Your task to perform on an android device: check google app version Image 0: 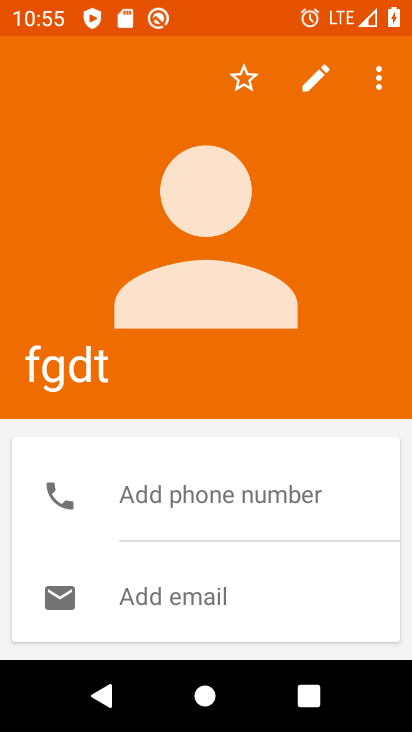
Step 0: press home button
Your task to perform on an android device: check google app version Image 1: 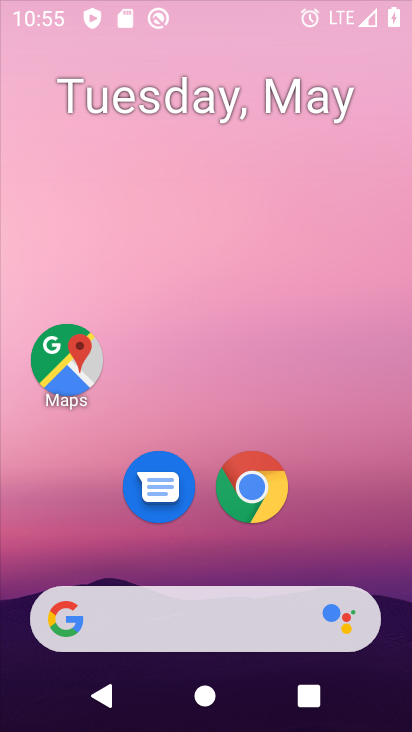
Step 1: drag from (185, 603) to (147, 1)
Your task to perform on an android device: check google app version Image 2: 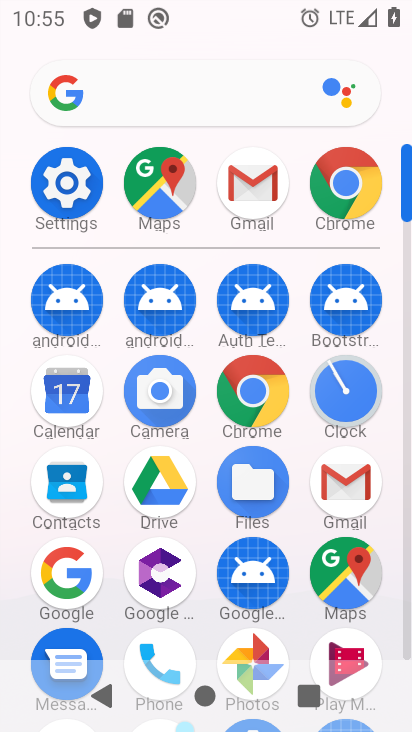
Step 2: click (56, 596)
Your task to perform on an android device: check google app version Image 3: 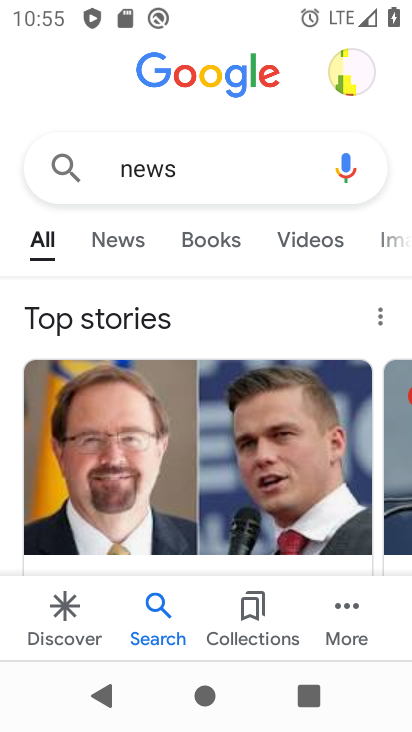
Step 3: click (334, 614)
Your task to perform on an android device: check google app version Image 4: 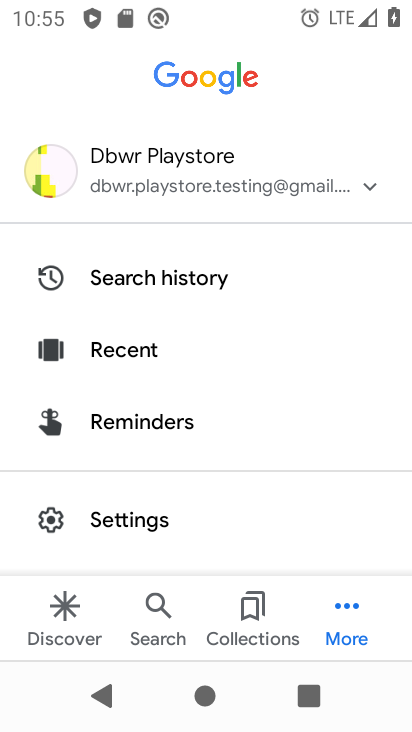
Step 4: drag from (243, 489) to (215, 212)
Your task to perform on an android device: check google app version Image 5: 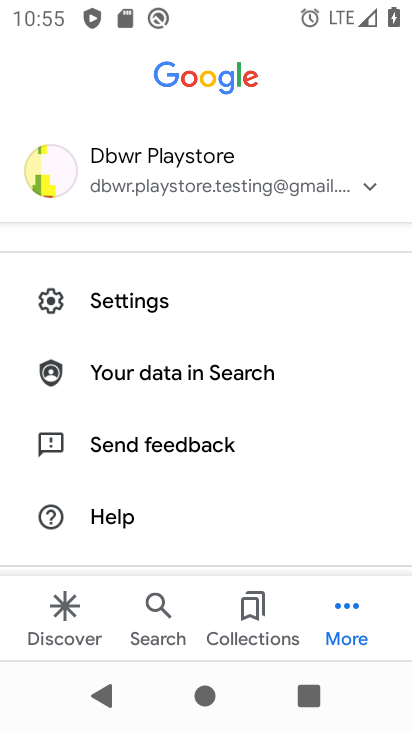
Step 5: click (158, 297)
Your task to perform on an android device: check google app version Image 6: 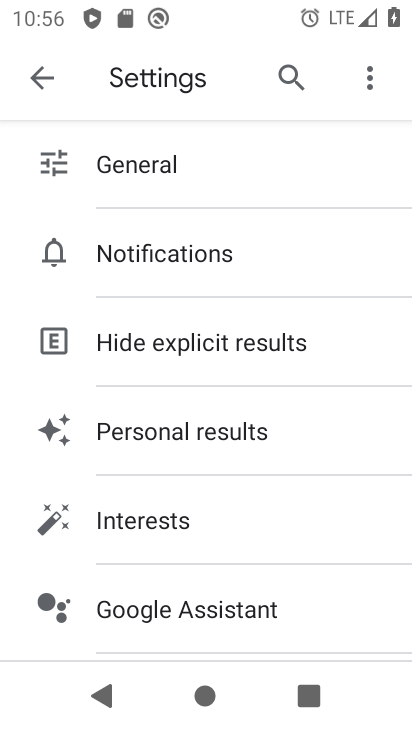
Step 6: drag from (229, 523) to (242, 232)
Your task to perform on an android device: check google app version Image 7: 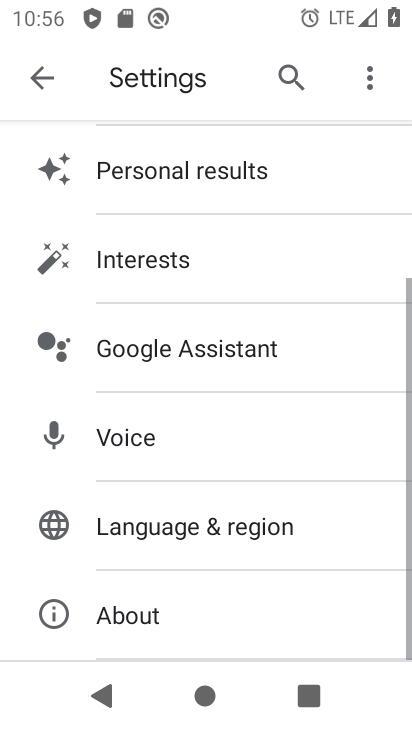
Step 7: click (161, 614)
Your task to perform on an android device: check google app version Image 8: 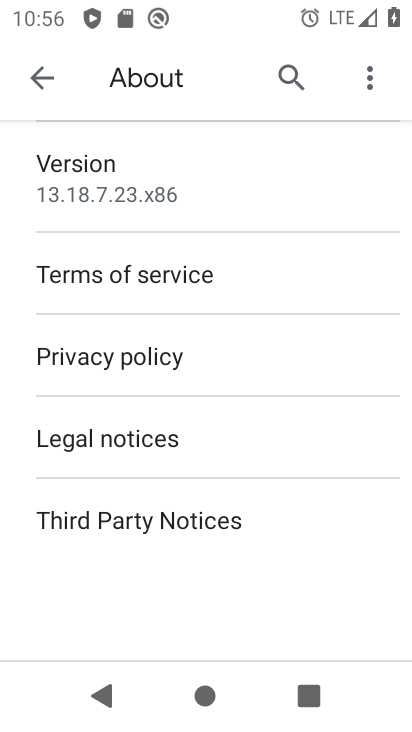
Step 8: click (144, 160)
Your task to perform on an android device: check google app version Image 9: 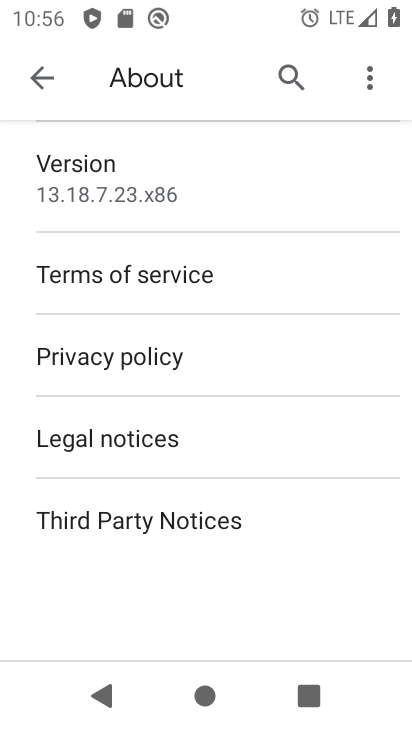
Step 9: click (203, 179)
Your task to perform on an android device: check google app version Image 10: 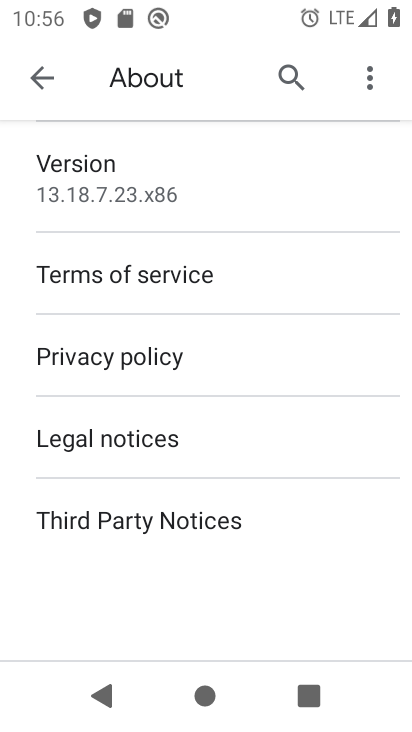
Step 10: task complete